Your task to perform on an android device: What's the weather going to be this weekend? Image 0: 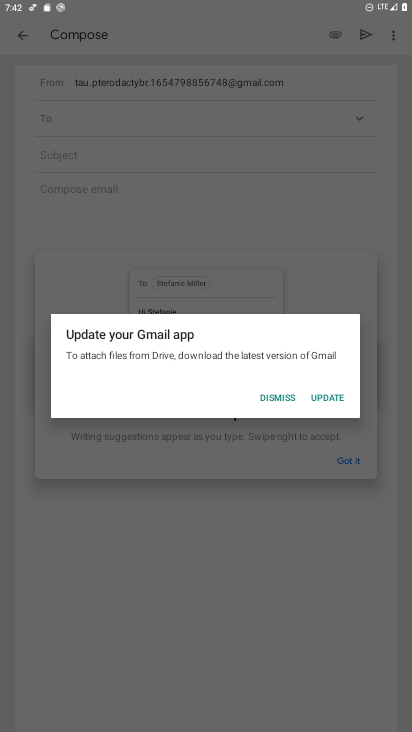
Step 0: click (403, 165)
Your task to perform on an android device: What's the weather going to be this weekend? Image 1: 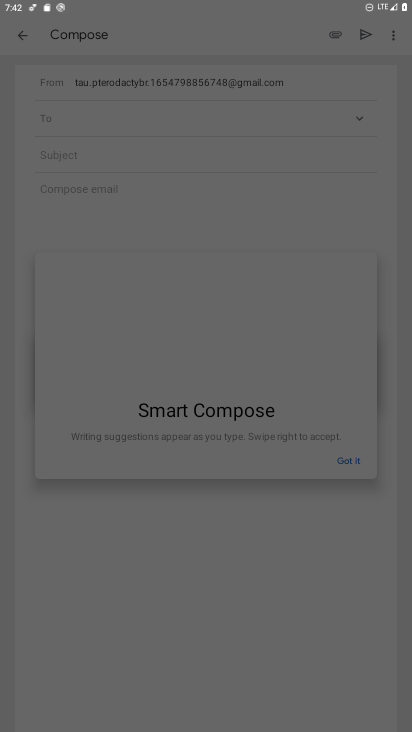
Step 1: drag from (277, 543) to (354, 385)
Your task to perform on an android device: What's the weather going to be this weekend? Image 2: 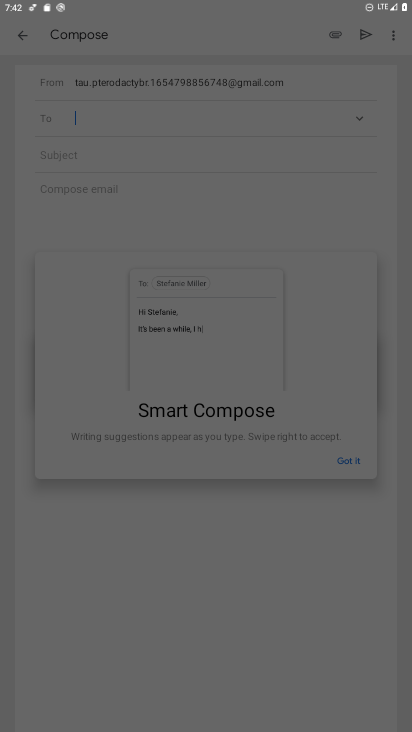
Step 2: press home button
Your task to perform on an android device: What's the weather going to be this weekend? Image 3: 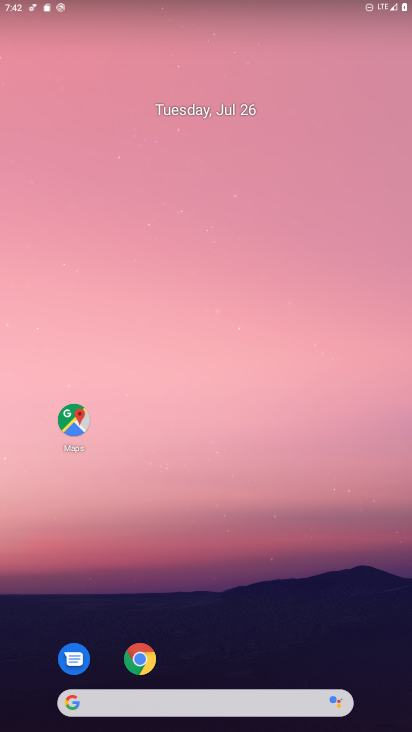
Step 3: drag from (192, 629) to (226, 408)
Your task to perform on an android device: What's the weather going to be this weekend? Image 4: 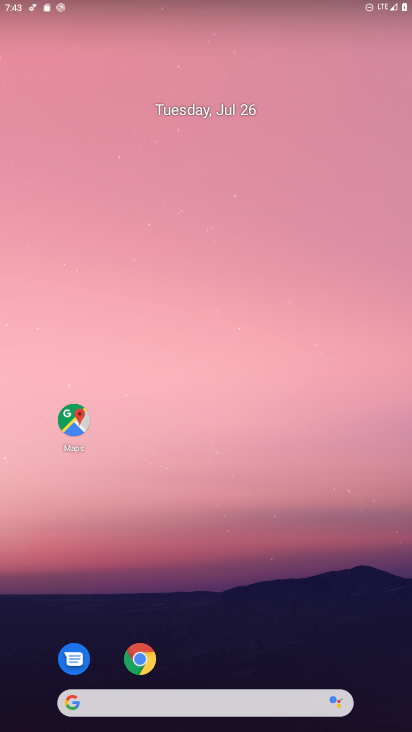
Step 4: drag from (189, 666) to (234, 290)
Your task to perform on an android device: What's the weather going to be this weekend? Image 5: 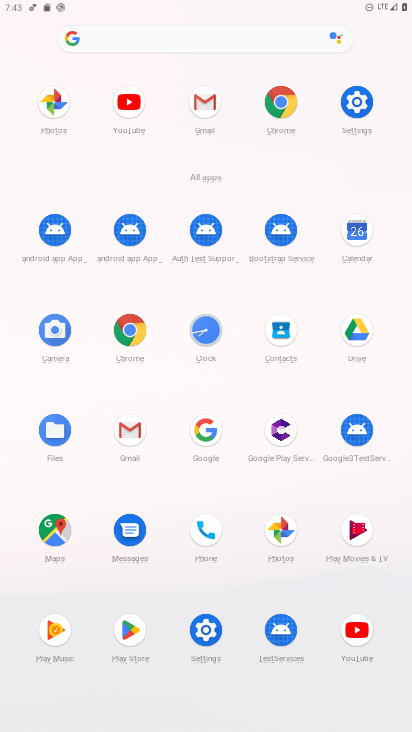
Step 5: click (157, 44)
Your task to perform on an android device: What's the weather going to be this weekend? Image 6: 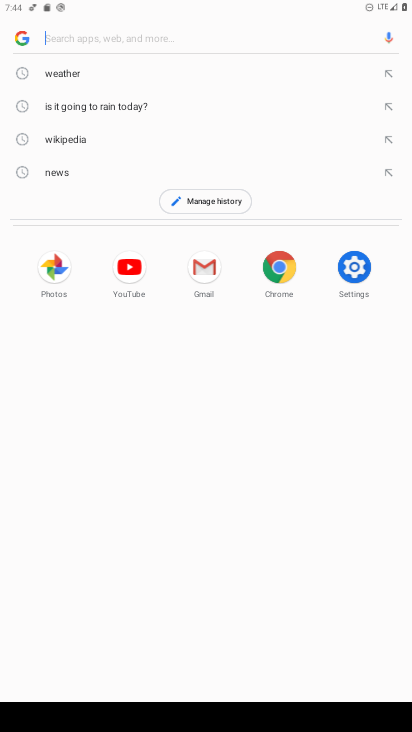
Step 6: type "What's the weather going to be this weekend?"
Your task to perform on an android device: What's the weather going to be this weekend? Image 7: 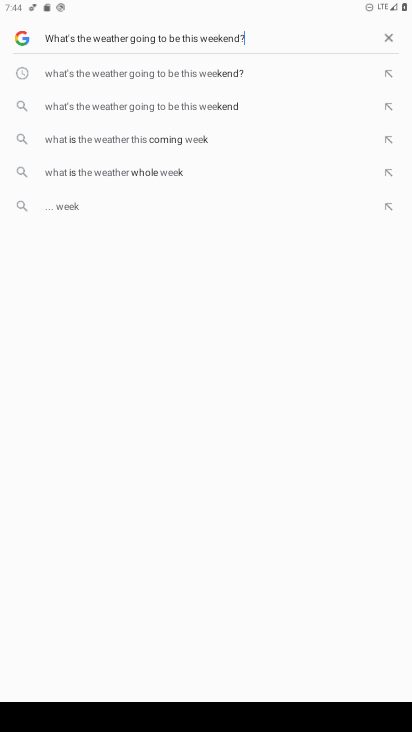
Step 7: type ""
Your task to perform on an android device: What's the weather going to be this weekend? Image 8: 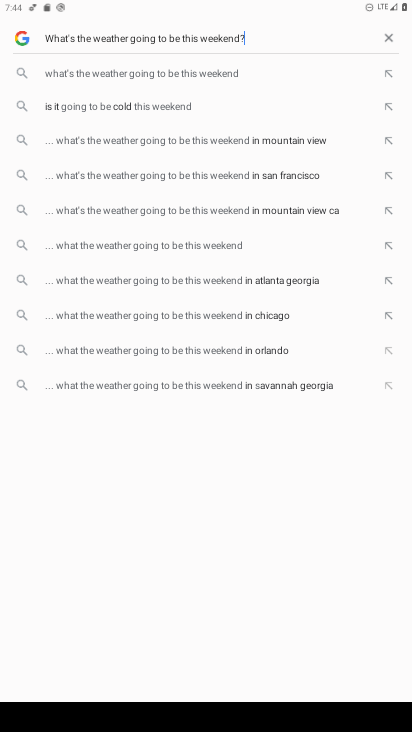
Step 8: click (207, 81)
Your task to perform on an android device: What's the weather going to be this weekend? Image 9: 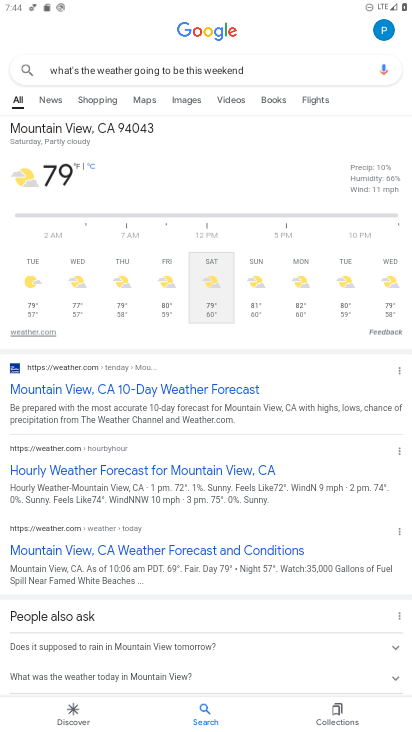
Step 9: task complete